Your task to perform on an android device: turn off translation in the chrome app Image 0: 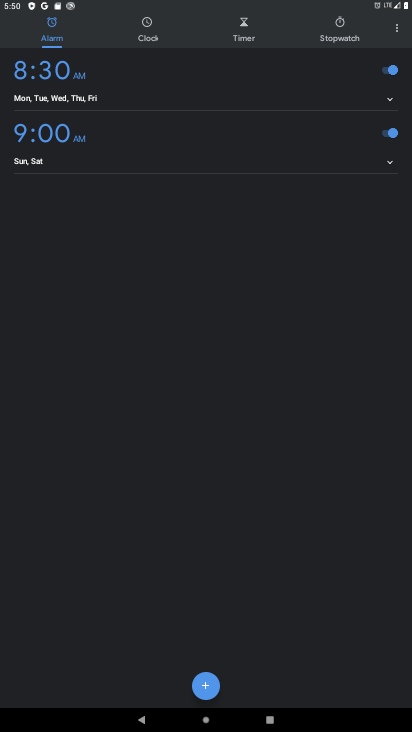
Step 0: press home button
Your task to perform on an android device: turn off translation in the chrome app Image 1: 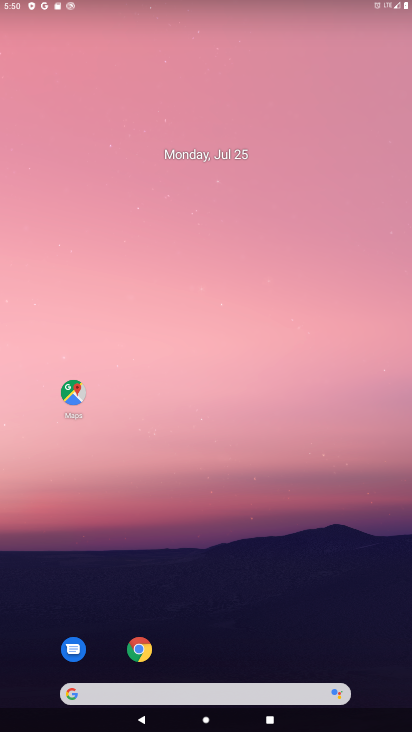
Step 1: drag from (259, 681) to (317, 44)
Your task to perform on an android device: turn off translation in the chrome app Image 2: 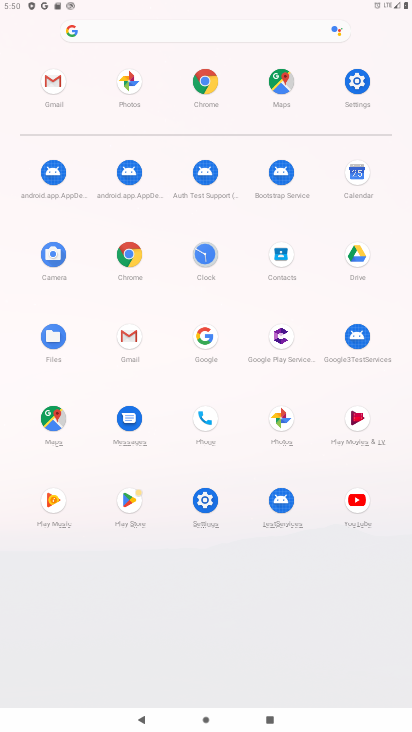
Step 2: click (125, 252)
Your task to perform on an android device: turn off translation in the chrome app Image 3: 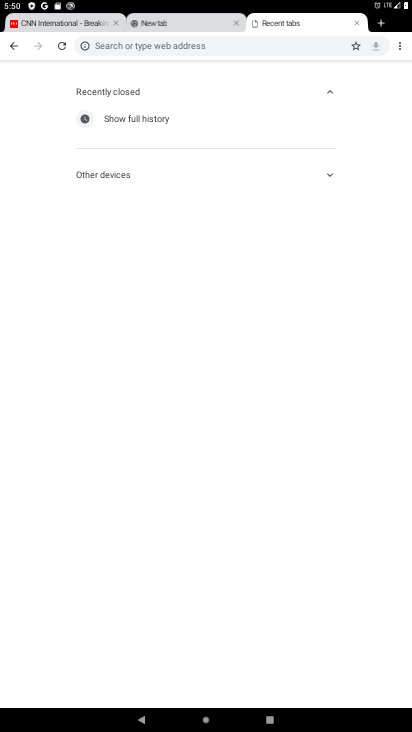
Step 3: drag from (400, 42) to (342, 219)
Your task to perform on an android device: turn off translation in the chrome app Image 4: 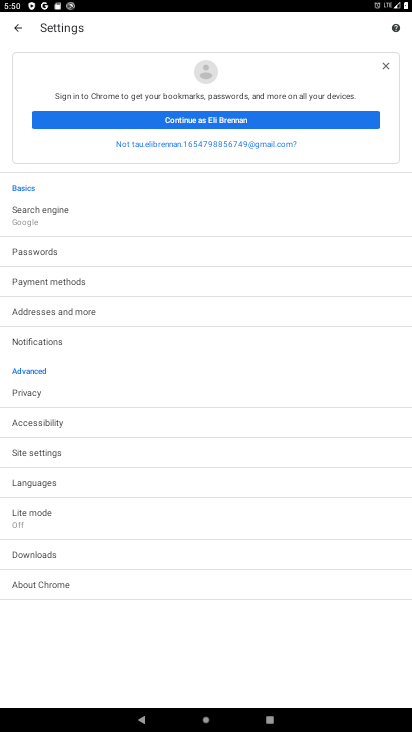
Step 4: click (46, 490)
Your task to perform on an android device: turn off translation in the chrome app Image 5: 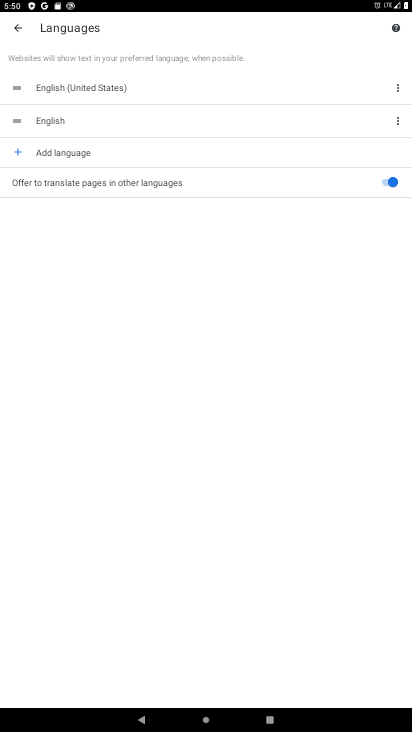
Step 5: click (385, 178)
Your task to perform on an android device: turn off translation in the chrome app Image 6: 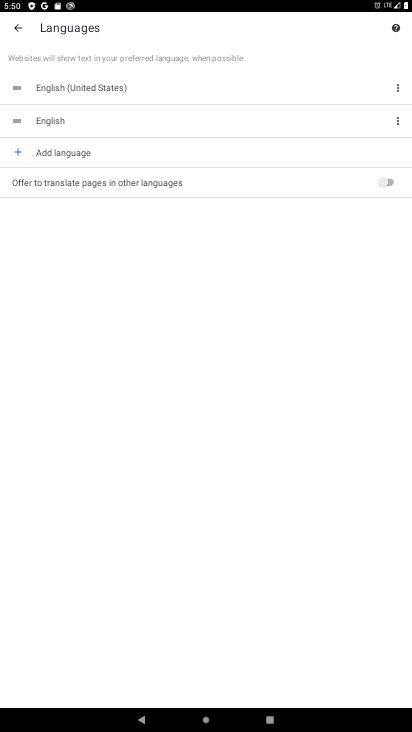
Step 6: task complete